Your task to perform on an android device: Open settings on Google Maps Image 0: 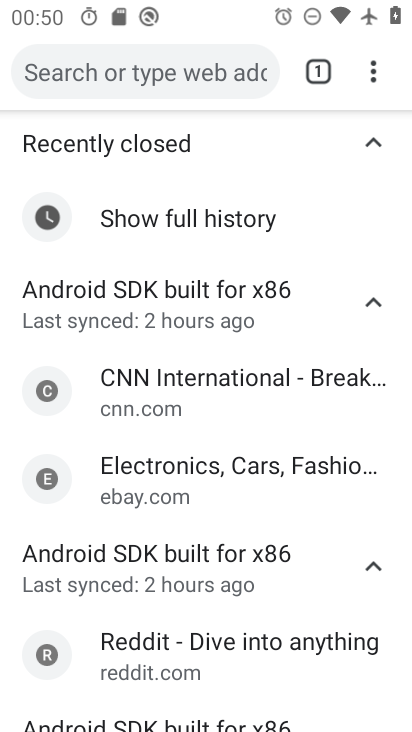
Step 0: press home button
Your task to perform on an android device: Open settings on Google Maps Image 1: 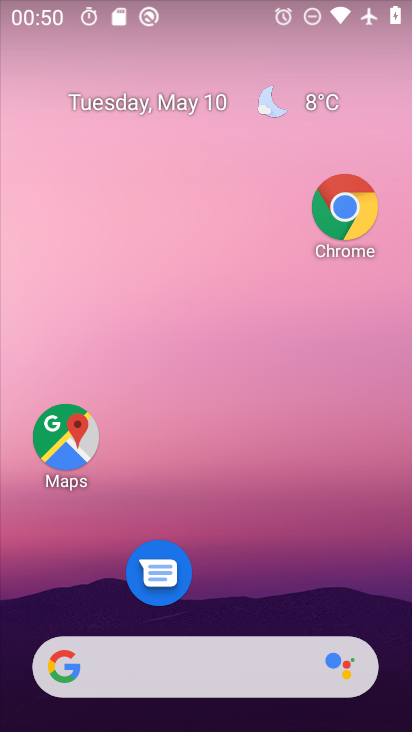
Step 1: drag from (307, 630) to (251, 170)
Your task to perform on an android device: Open settings on Google Maps Image 2: 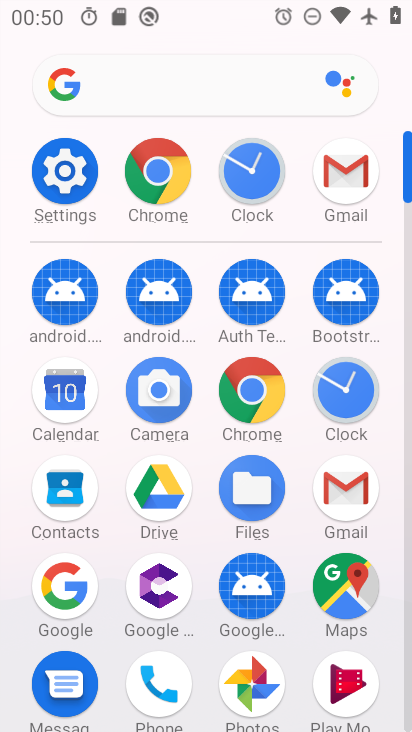
Step 2: click (335, 583)
Your task to perform on an android device: Open settings on Google Maps Image 3: 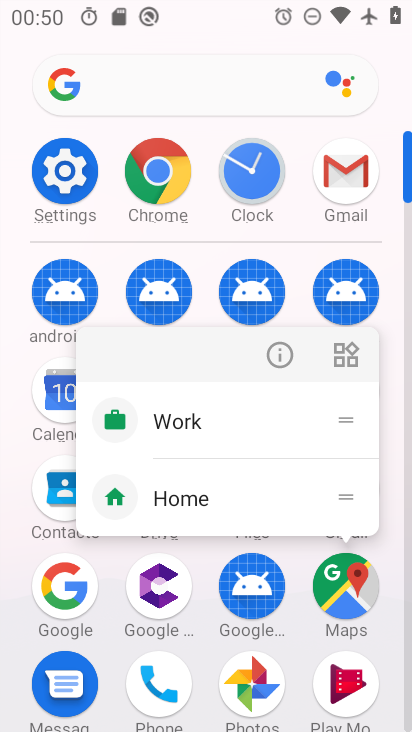
Step 3: click (352, 592)
Your task to perform on an android device: Open settings on Google Maps Image 4: 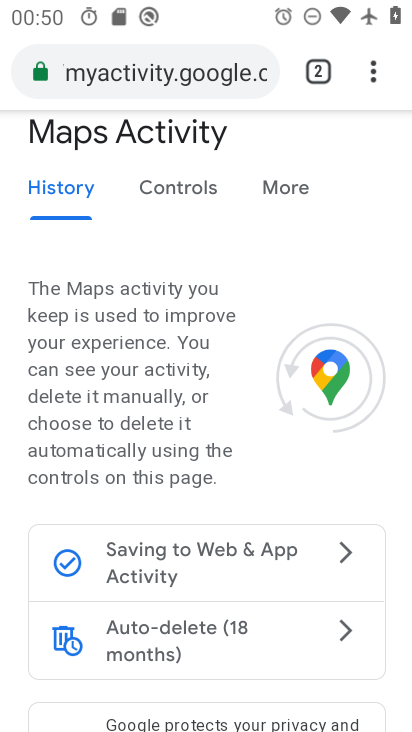
Step 4: task complete